Your task to perform on an android device: change the clock style Image 0: 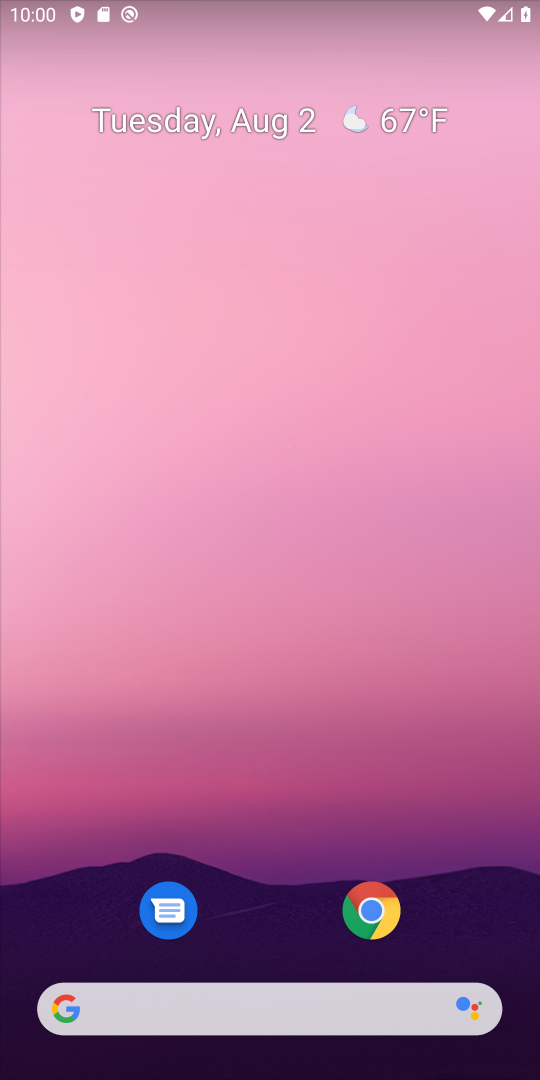
Step 0: drag from (219, 854) to (219, 318)
Your task to perform on an android device: change the clock style Image 1: 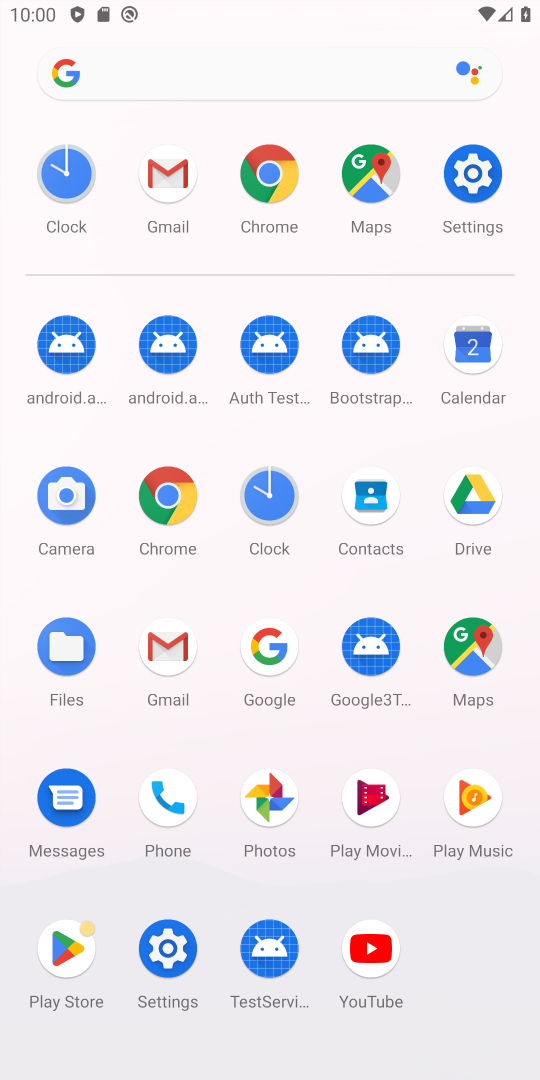
Step 1: click (277, 481)
Your task to perform on an android device: change the clock style Image 2: 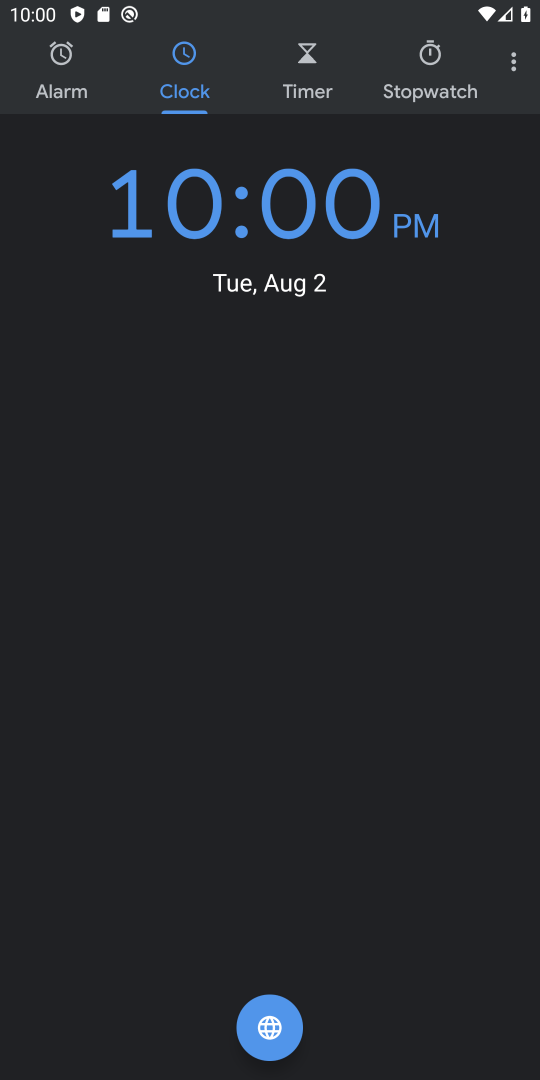
Step 2: click (523, 67)
Your task to perform on an android device: change the clock style Image 3: 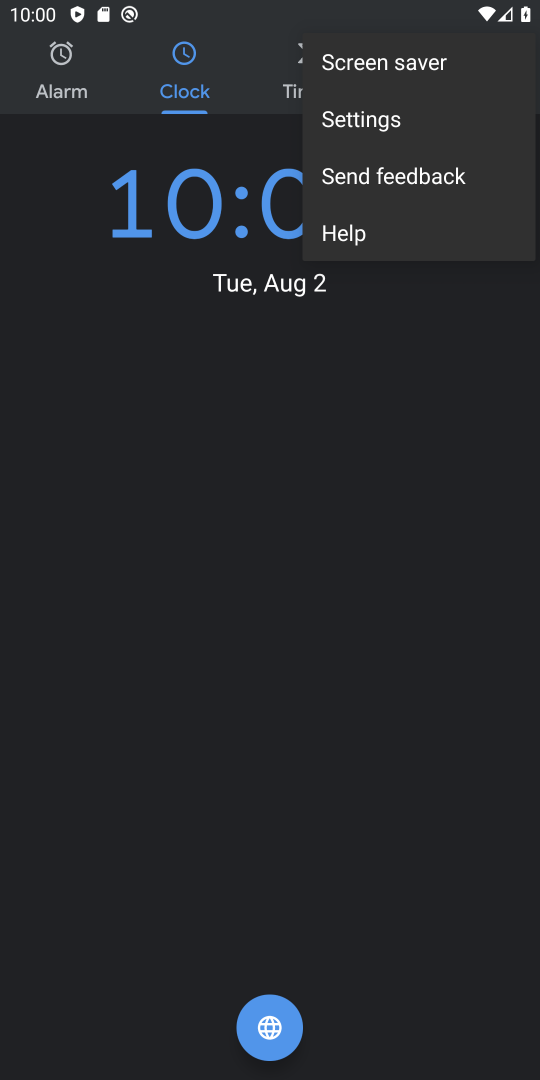
Step 3: click (364, 133)
Your task to perform on an android device: change the clock style Image 4: 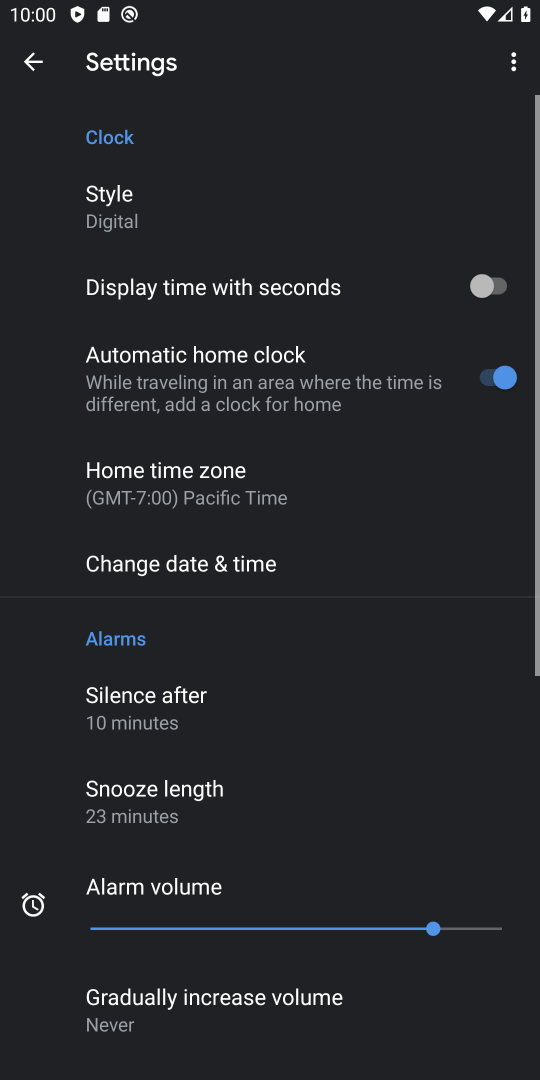
Step 4: click (124, 204)
Your task to perform on an android device: change the clock style Image 5: 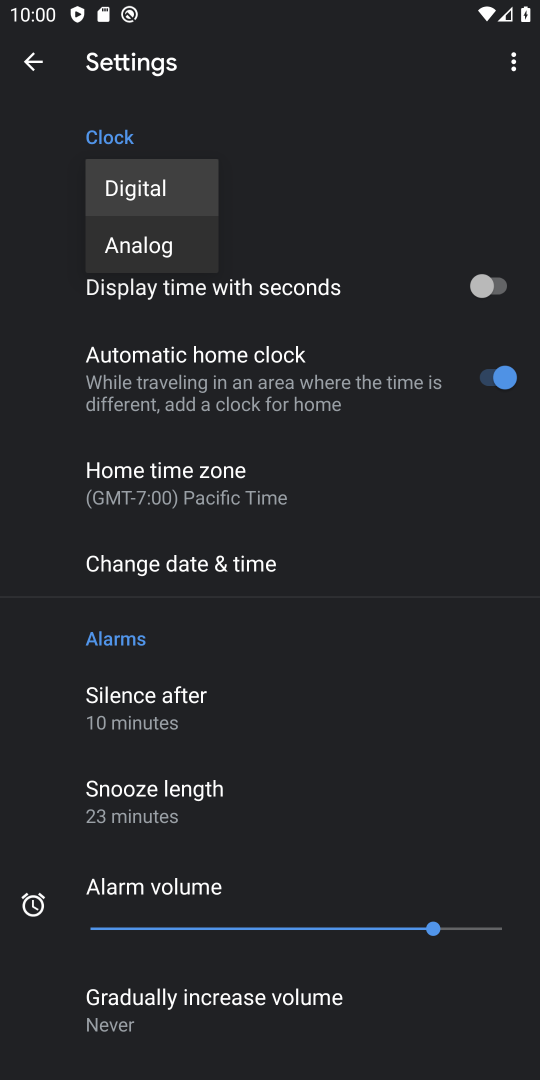
Step 5: click (140, 242)
Your task to perform on an android device: change the clock style Image 6: 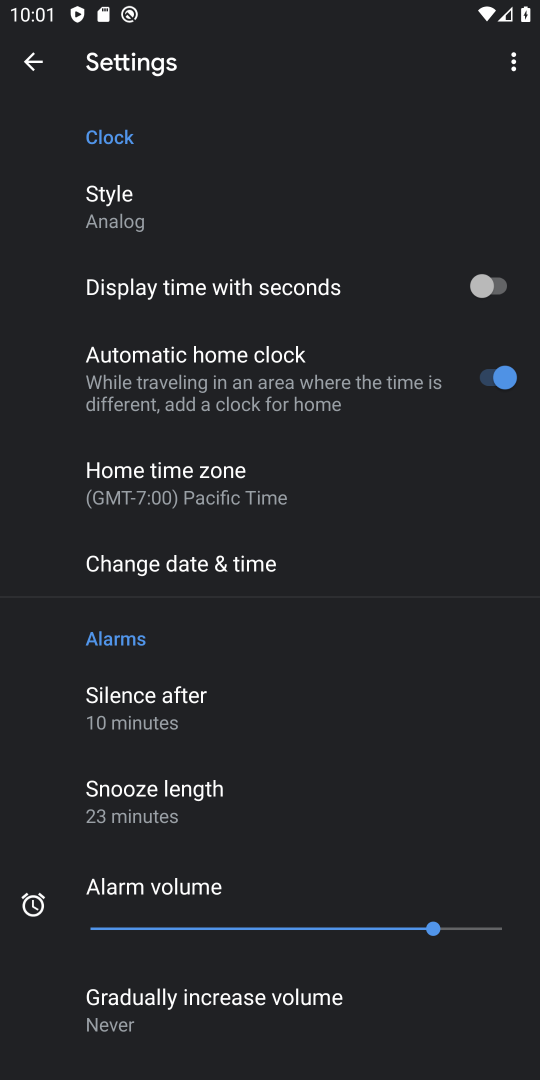
Step 6: task complete